Your task to perform on an android device: View the shopping cart on amazon. Search for "razer kraken" on amazon, select the first entry, and add it to the cart. Image 0: 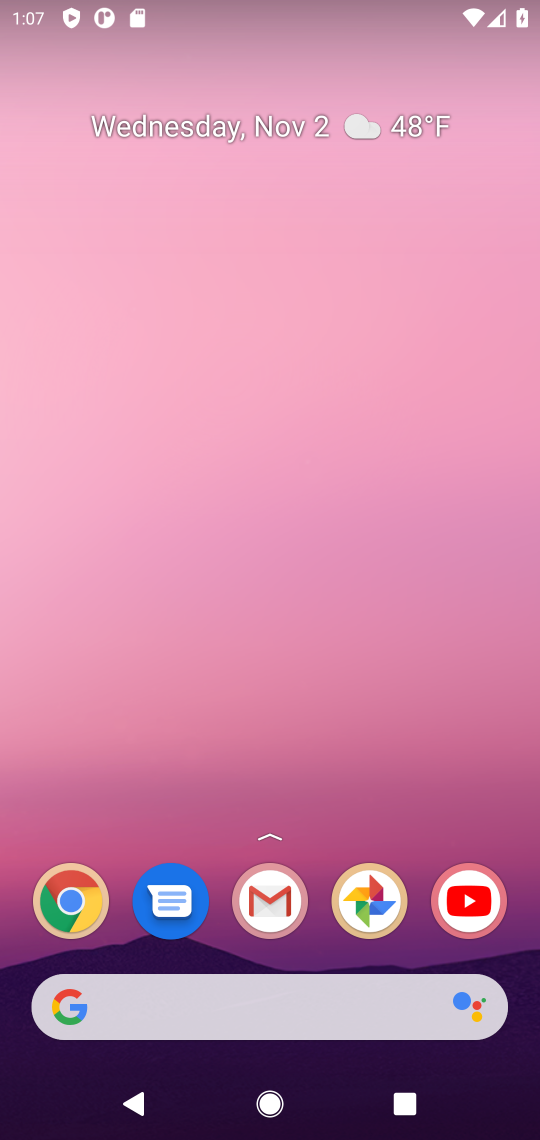
Step 0: drag from (303, 952) to (301, 202)
Your task to perform on an android device: View the shopping cart on amazon. Search for "razer kraken" on amazon, select the first entry, and add it to the cart. Image 1: 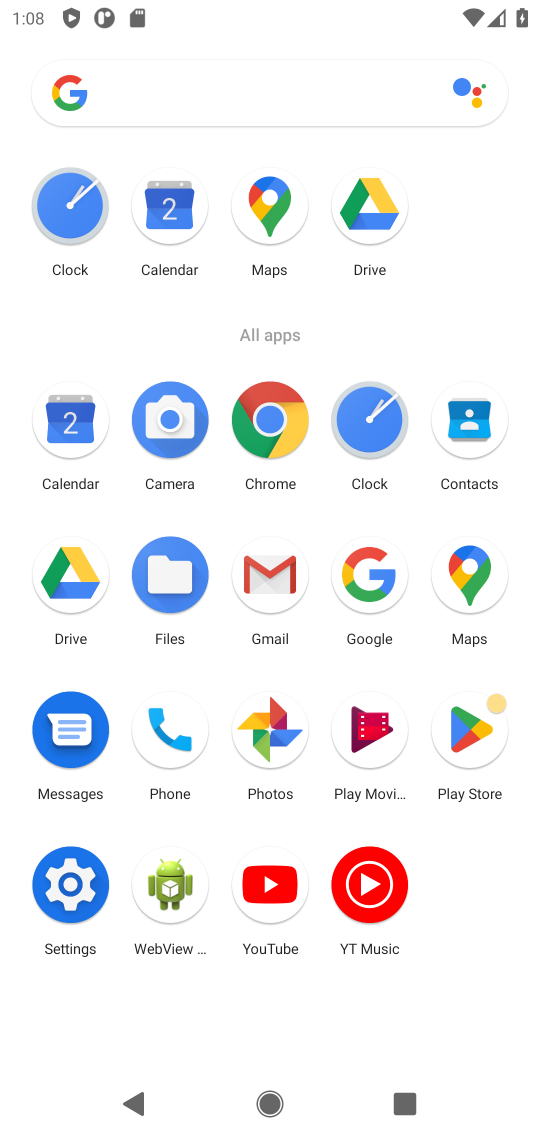
Step 1: click (260, 426)
Your task to perform on an android device: View the shopping cart on amazon. Search for "razer kraken" on amazon, select the first entry, and add it to the cart. Image 2: 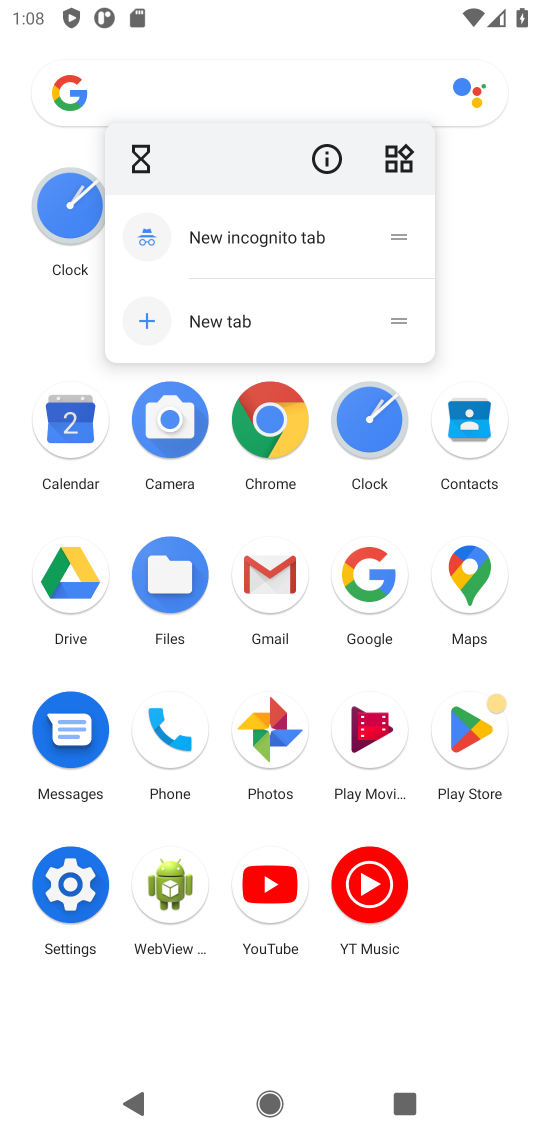
Step 2: click (272, 437)
Your task to perform on an android device: View the shopping cart on amazon. Search for "razer kraken" on amazon, select the first entry, and add it to the cart. Image 3: 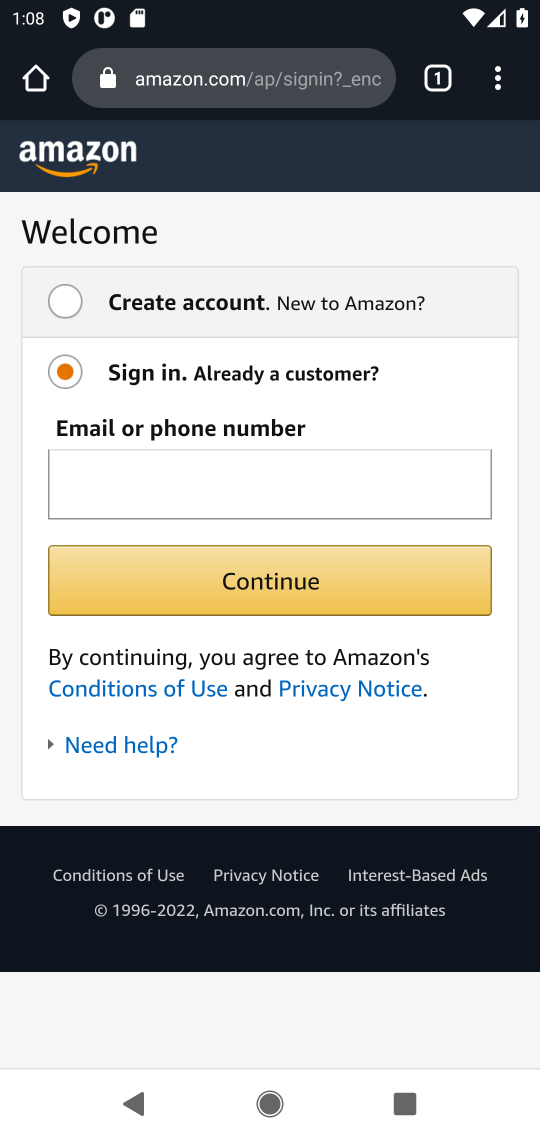
Step 3: click (202, 83)
Your task to perform on an android device: View the shopping cart on amazon. Search for "razer kraken" on amazon, select the first entry, and add it to the cart. Image 4: 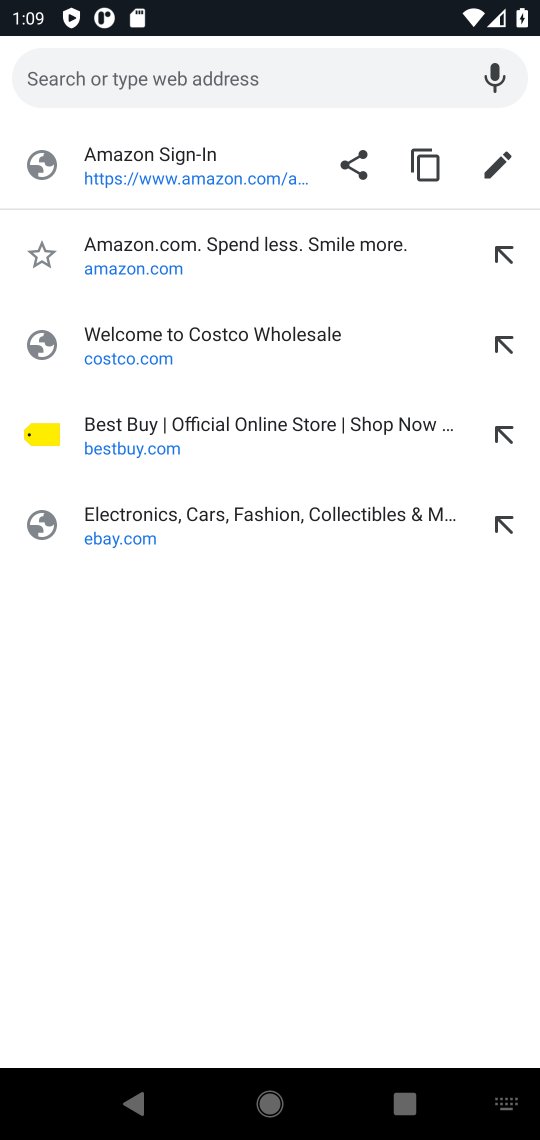
Step 4: type "amazon.com"
Your task to perform on an android device: View the shopping cart on amazon. Search for "razer kraken" on amazon, select the first entry, and add it to the cart. Image 5: 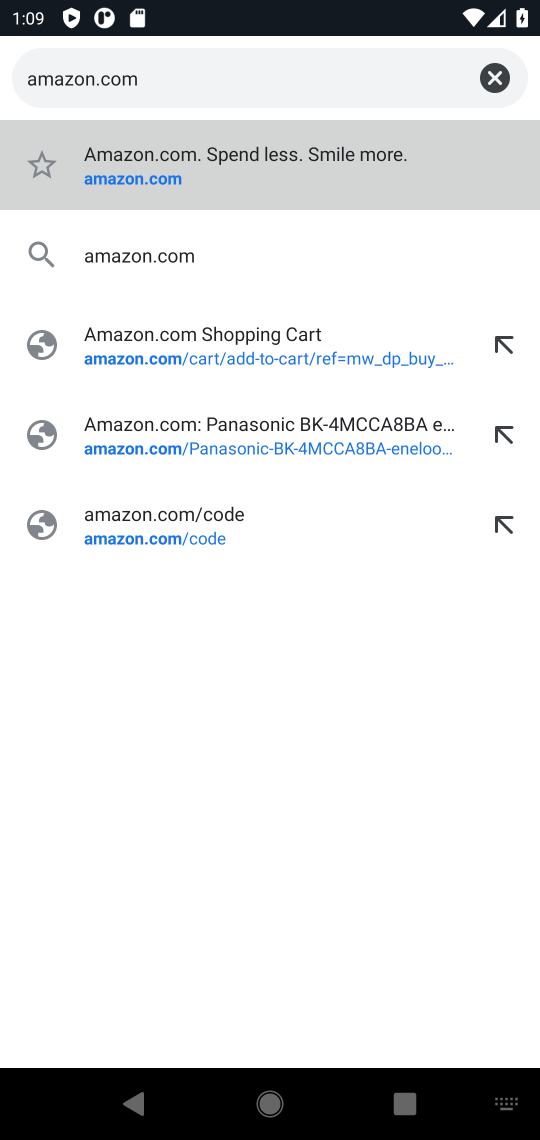
Step 5: press enter
Your task to perform on an android device: View the shopping cart on amazon. Search for "razer kraken" on amazon, select the first entry, and add it to the cart. Image 6: 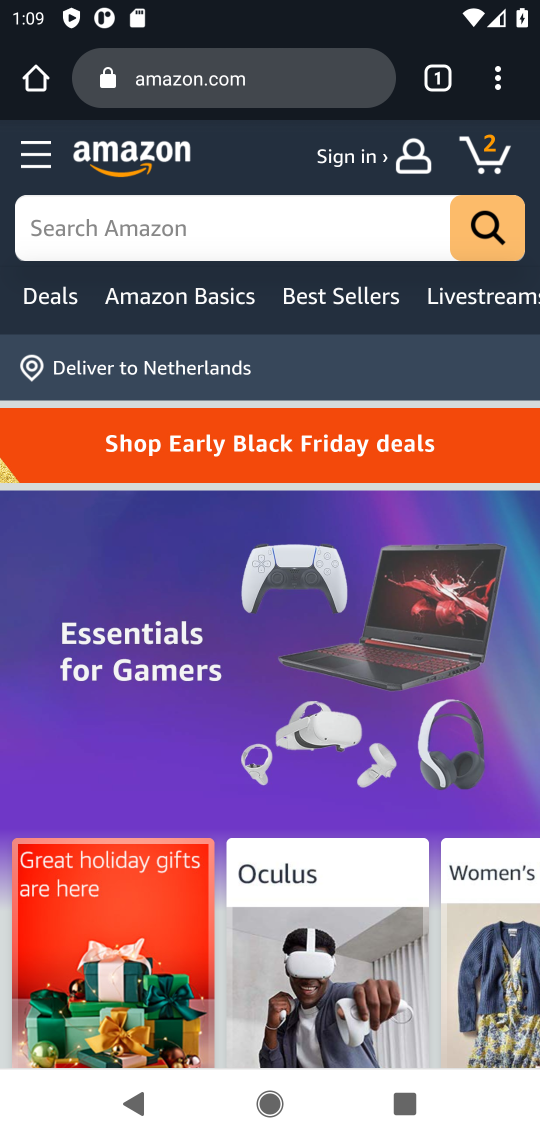
Step 6: click (504, 145)
Your task to perform on an android device: View the shopping cart on amazon. Search for "razer kraken" on amazon, select the first entry, and add it to the cart. Image 7: 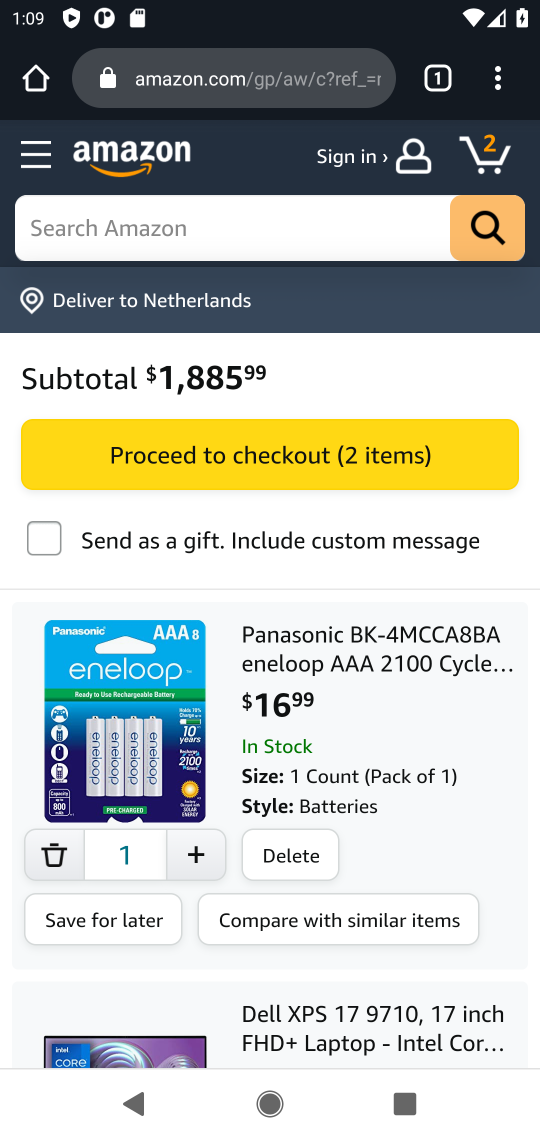
Step 7: click (375, 230)
Your task to perform on an android device: View the shopping cart on amazon. Search for "razer kraken" on amazon, select the first entry, and add it to the cart. Image 8: 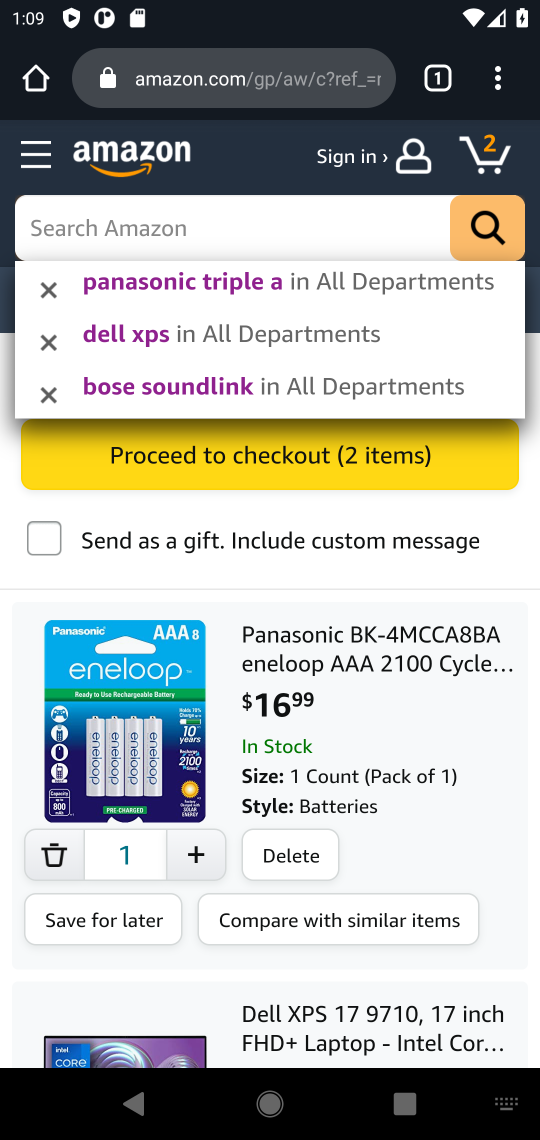
Step 8: type "razer kraken"
Your task to perform on an android device: View the shopping cart on amazon. Search for "razer kraken" on amazon, select the first entry, and add it to the cart. Image 9: 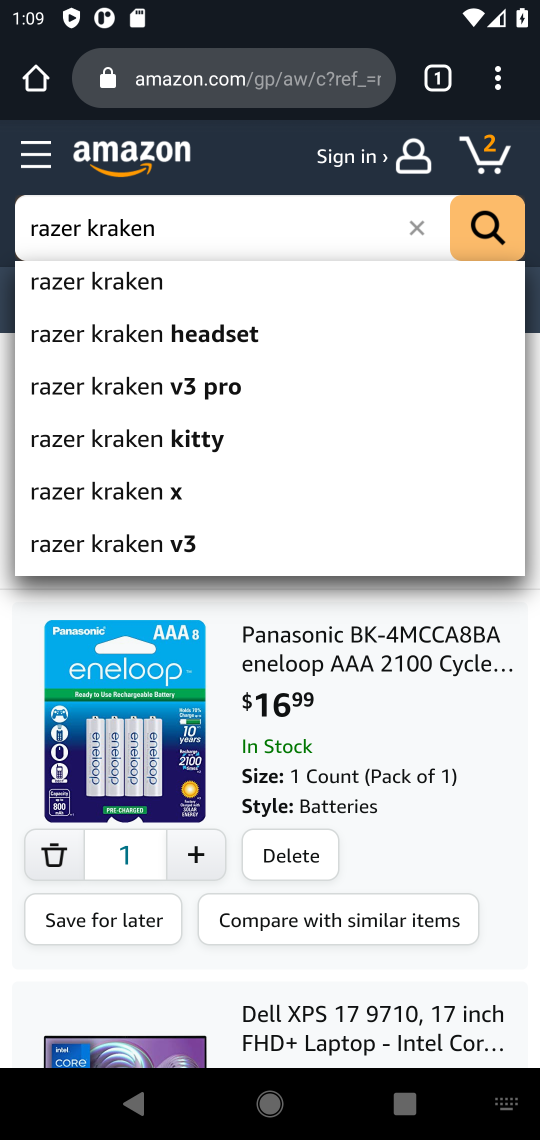
Step 9: press enter
Your task to perform on an android device: View the shopping cart on amazon. Search for "razer kraken" on amazon, select the first entry, and add it to the cart. Image 10: 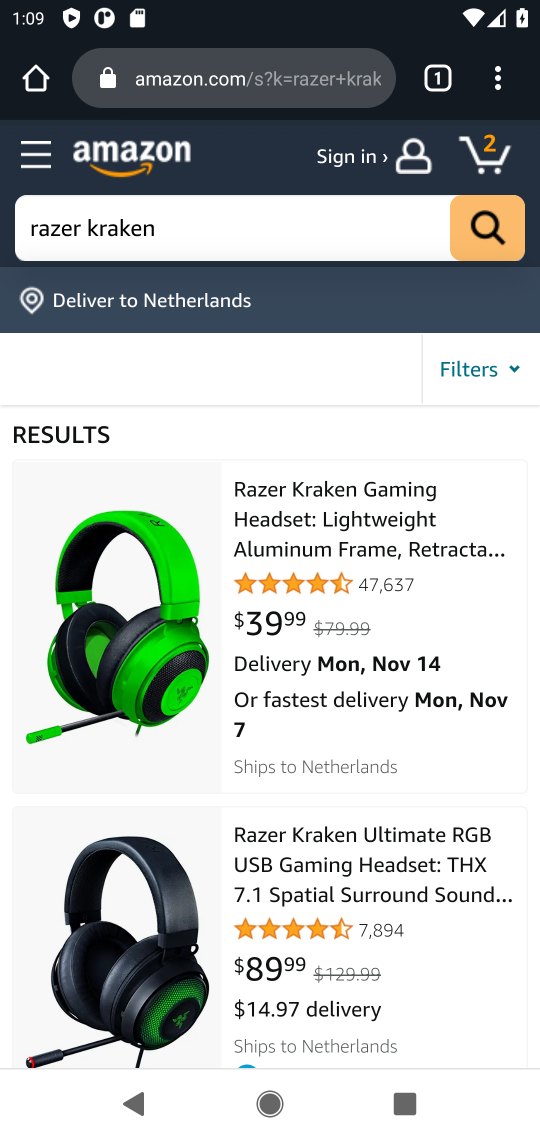
Step 10: click (295, 545)
Your task to perform on an android device: View the shopping cart on amazon. Search for "razer kraken" on amazon, select the first entry, and add it to the cart. Image 11: 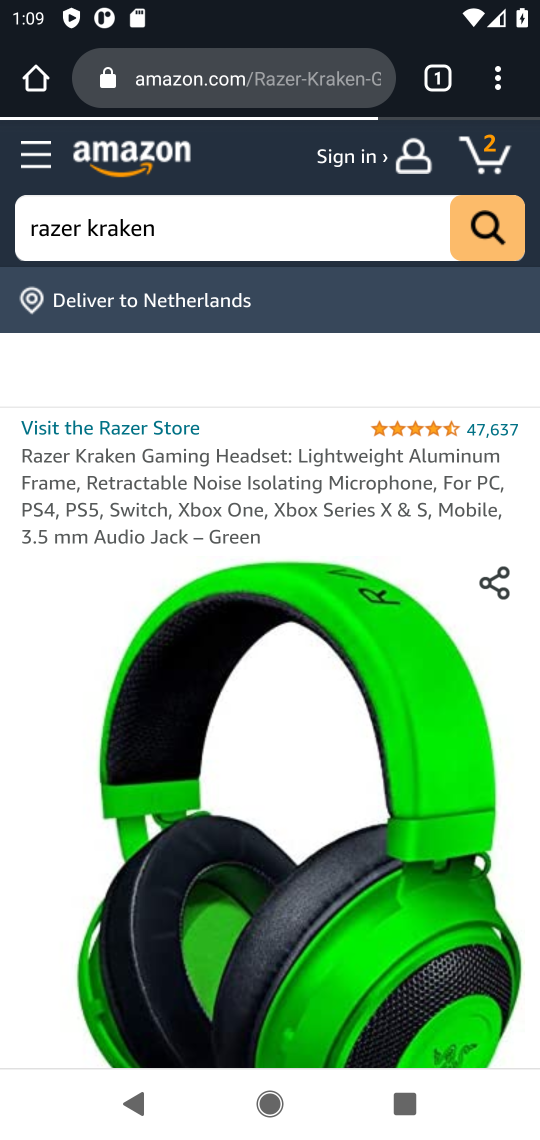
Step 11: drag from (209, 877) to (229, 128)
Your task to perform on an android device: View the shopping cart on amazon. Search for "razer kraken" on amazon, select the first entry, and add it to the cart. Image 12: 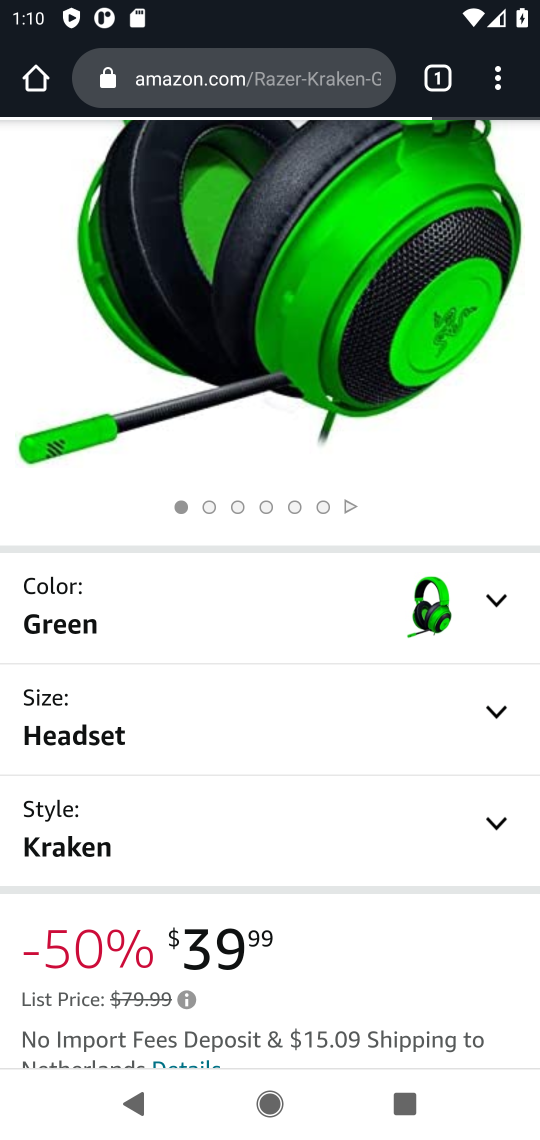
Step 12: drag from (61, 793) to (158, 412)
Your task to perform on an android device: View the shopping cart on amazon. Search for "razer kraken" on amazon, select the first entry, and add it to the cart. Image 13: 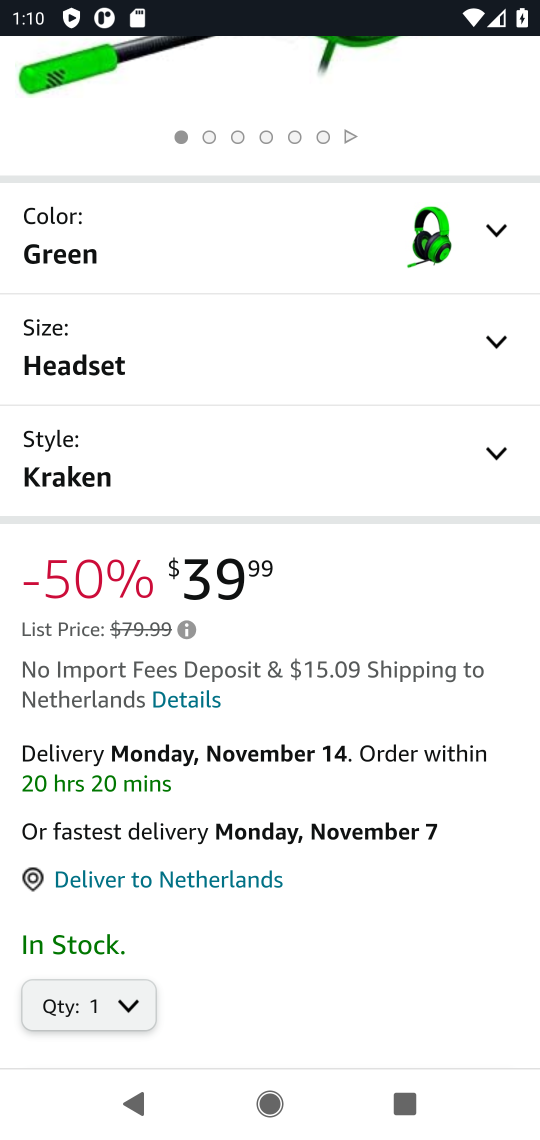
Step 13: drag from (438, 921) to (399, 402)
Your task to perform on an android device: View the shopping cart on amazon. Search for "razer kraken" on amazon, select the first entry, and add it to the cart. Image 14: 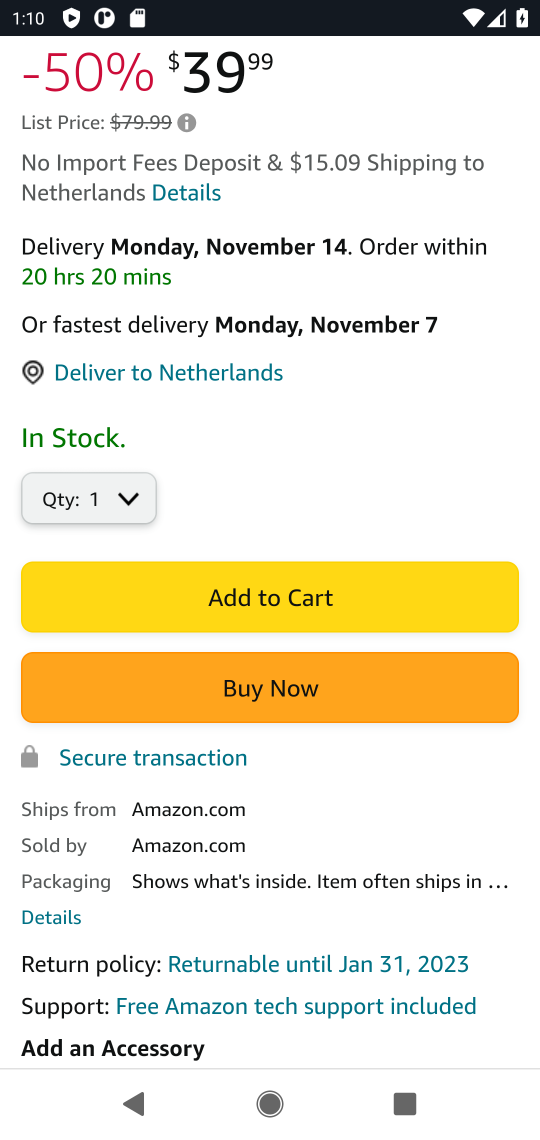
Step 14: click (201, 606)
Your task to perform on an android device: View the shopping cart on amazon. Search for "razer kraken" on amazon, select the first entry, and add it to the cart. Image 15: 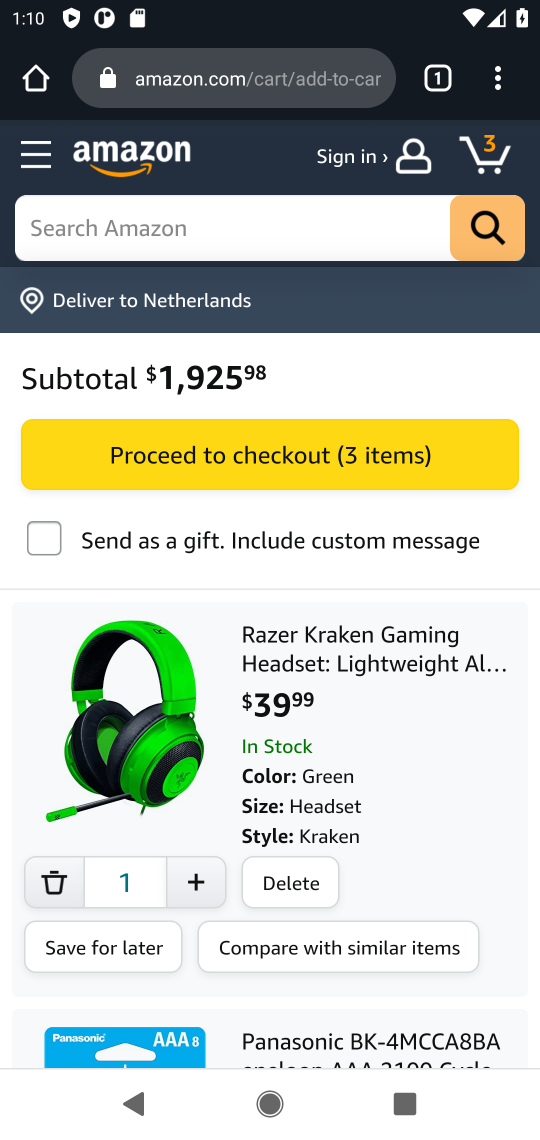
Step 15: task complete